Your task to perform on an android device: Open notification settings Image 0: 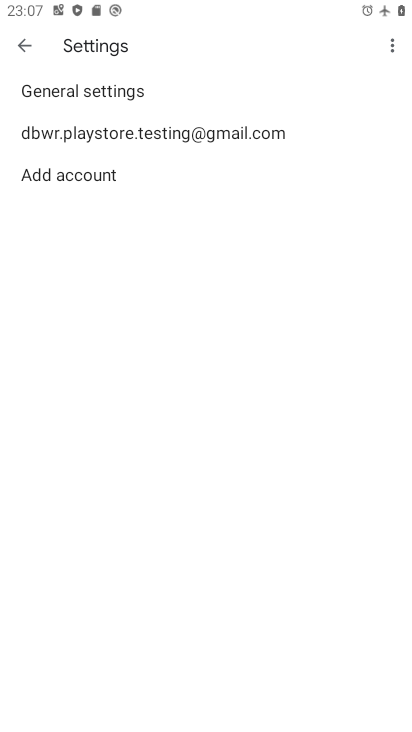
Step 0: press home button
Your task to perform on an android device: Open notification settings Image 1: 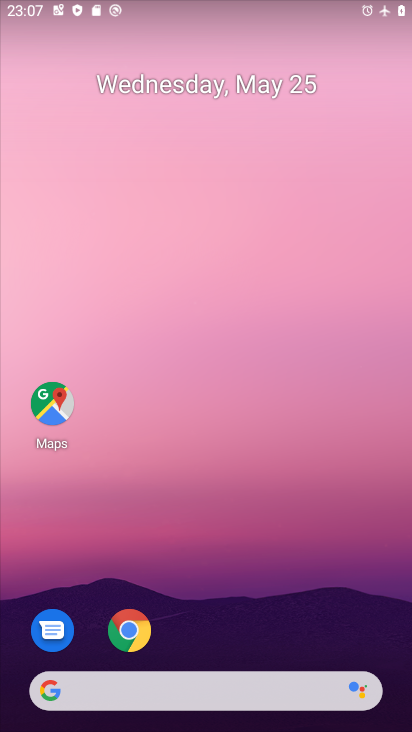
Step 1: drag from (248, 629) to (259, 266)
Your task to perform on an android device: Open notification settings Image 2: 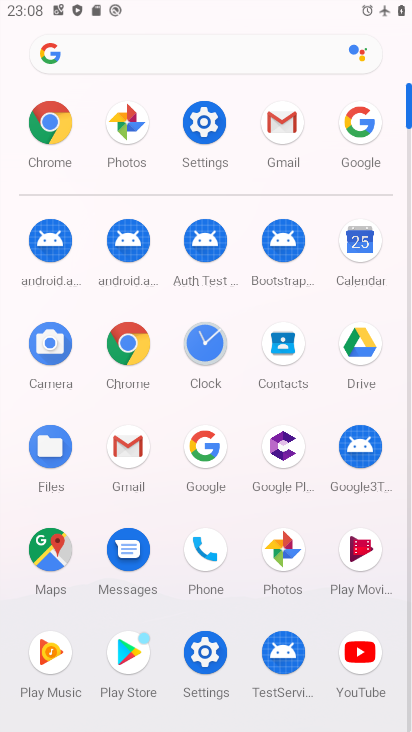
Step 2: click (189, 116)
Your task to perform on an android device: Open notification settings Image 3: 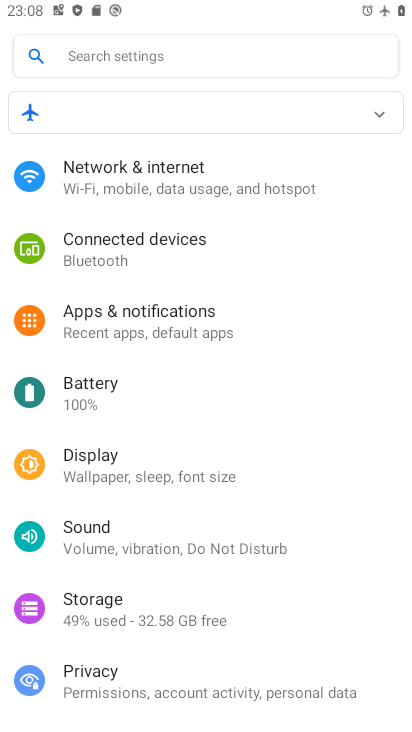
Step 3: click (167, 314)
Your task to perform on an android device: Open notification settings Image 4: 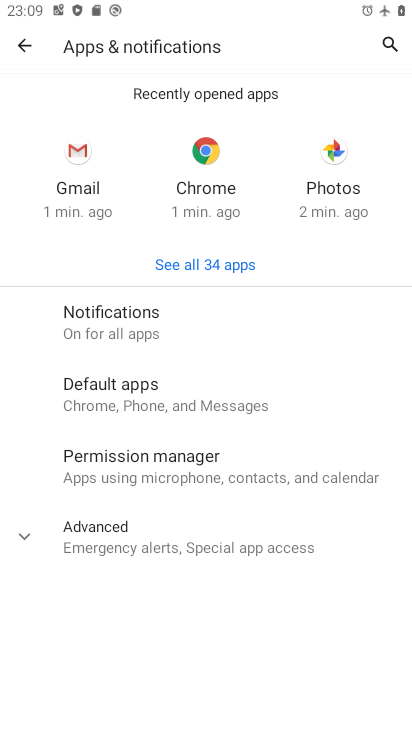
Step 4: click (172, 338)
Your task to perform on an android device: Open notification settings Image 5: 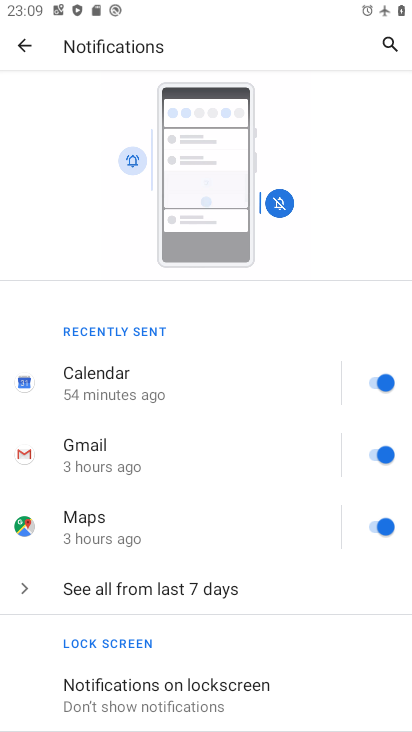
Step 5: task complete